Your task to perform on an android device: Open Google Maps and go to "Timeline" Image 0: 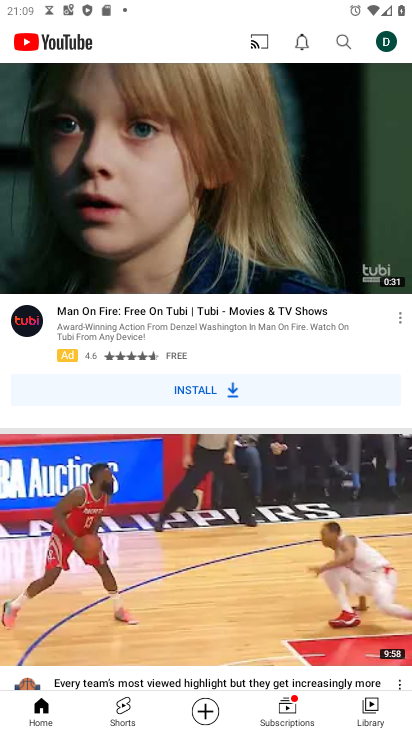
Step 0: press home button
Your task to perform on an android device: Open Google Maps and go to "Timeline" Image 1: 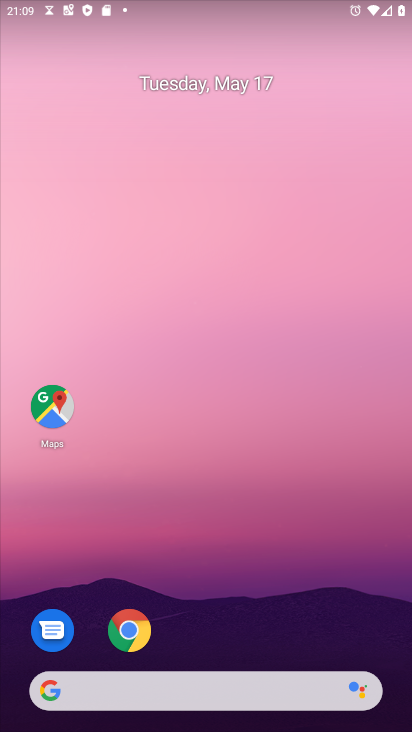
Step 1: click (61, 403)
Your task to perform on an android device: Open Google Maps and go to "Timeline" Image 2: 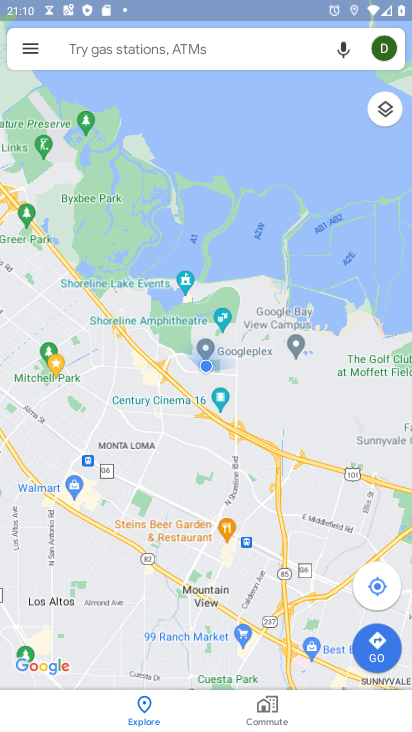
Step 2: click (31, 47)
Your task to perform on an android device: Open Google Maps and go to "Timeline" Image 3: 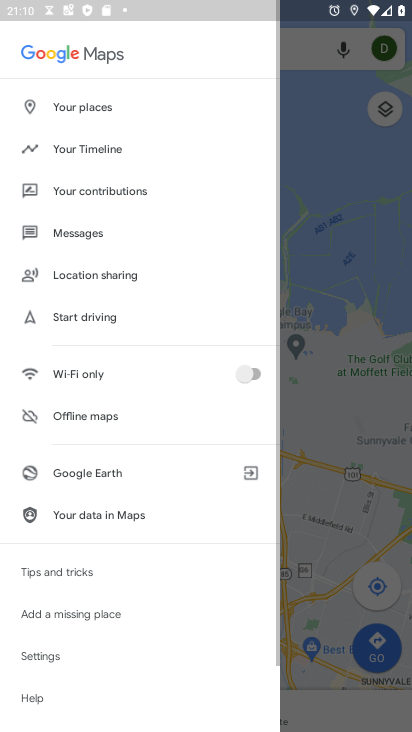
Step 3: click (78, 146)
Your task to perform on an android device: Open Google Maps and go to "Timeline" Image 4: 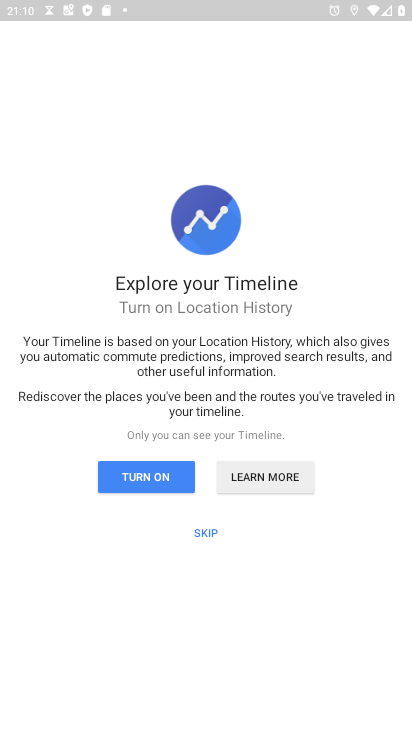
Step 4: task complete